Your task to perform on an android device: Open the web browser Image 0: 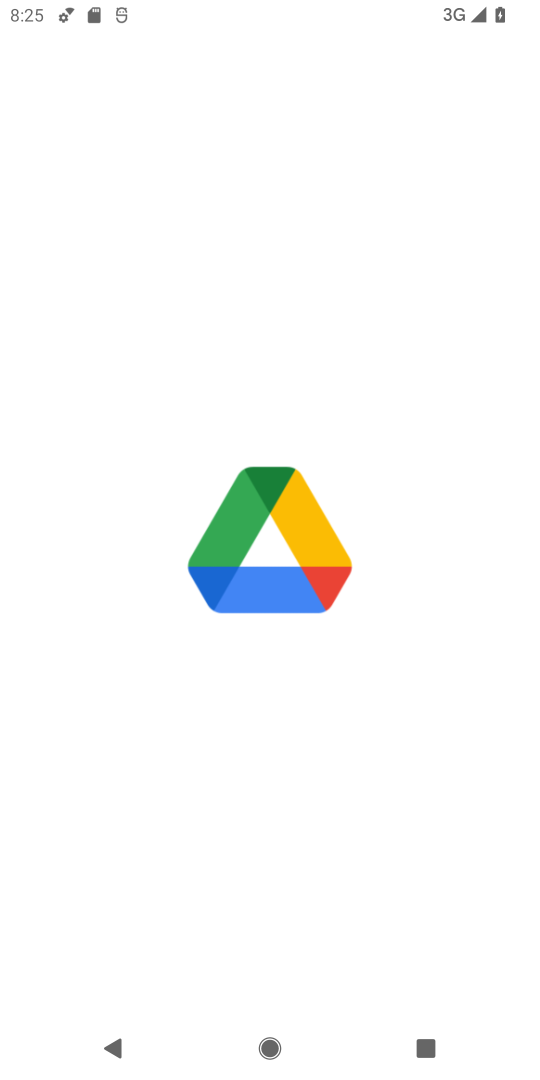
Step 0: press home button
Your task to perform on an android device: Open the web browser Image 1: 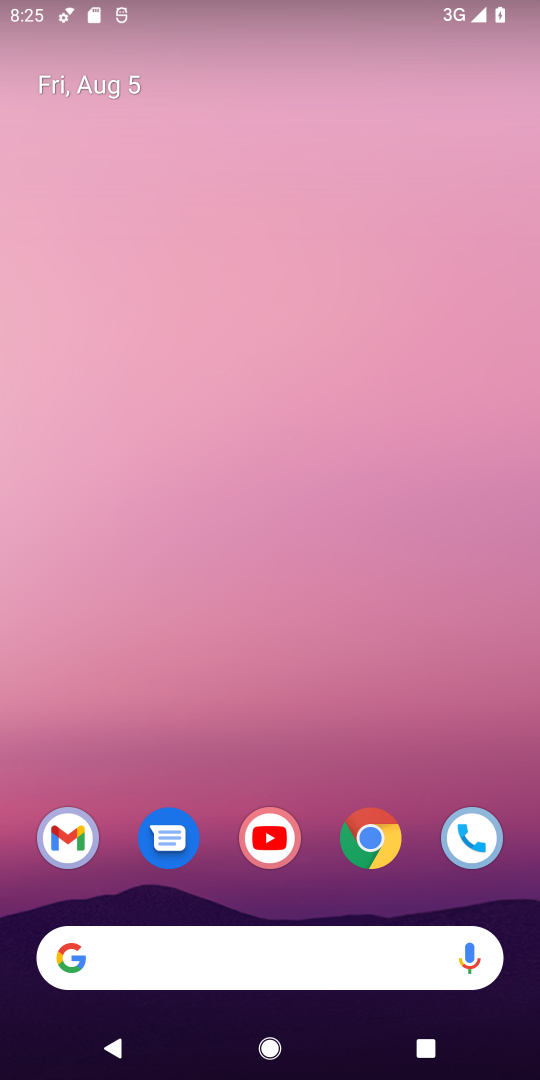
Step 1: click (296, 951)
Your task to perform on an android device: Open the web browser Image 2: 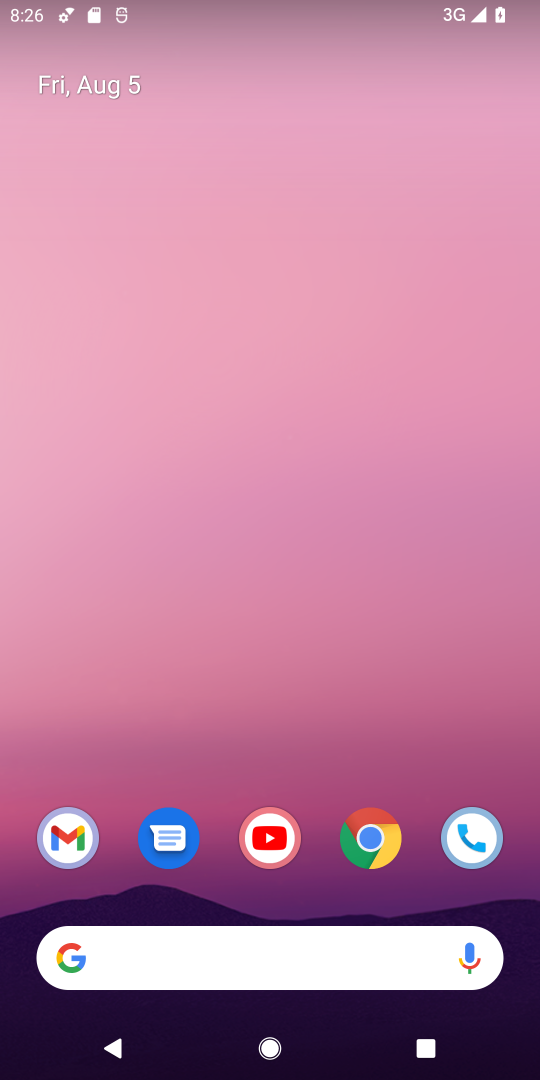
Step 2: click (261, 951)
Your task to perform on an android device: Open the web browser Image 3: 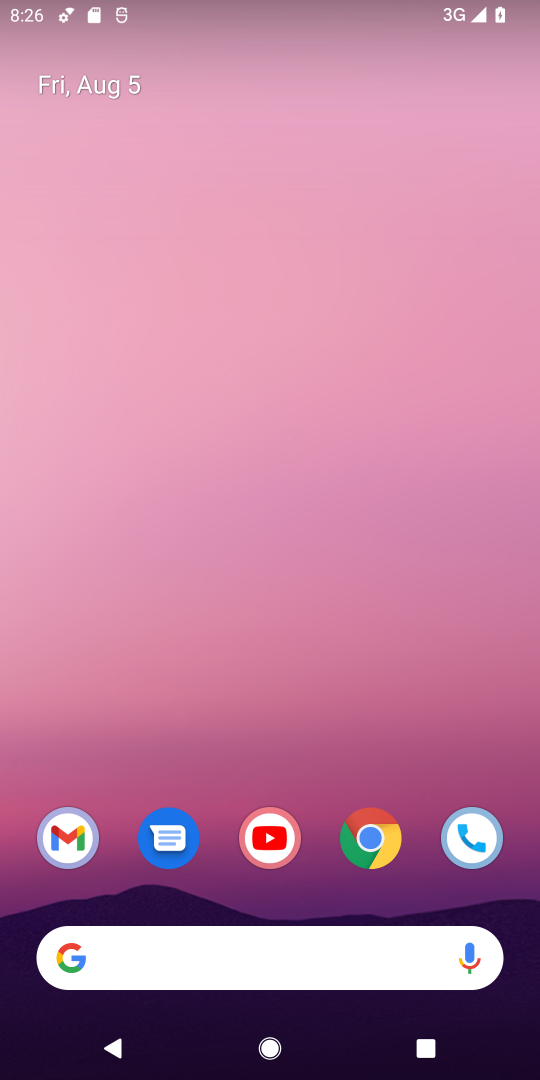
Step 3: task complete